Your task to perform on an android device: Look up the best rated pressure washer on Home Depot. Image 0: 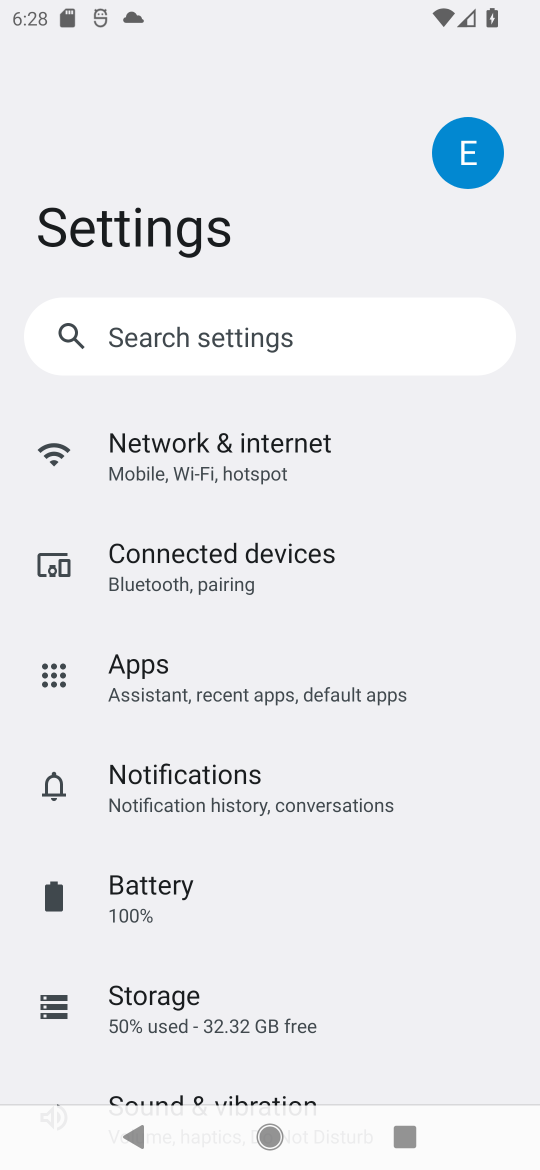
Step 0: press home button
Your task to perform on an android device: Look up the best rated pressure washer on Home Depot. Image 1: 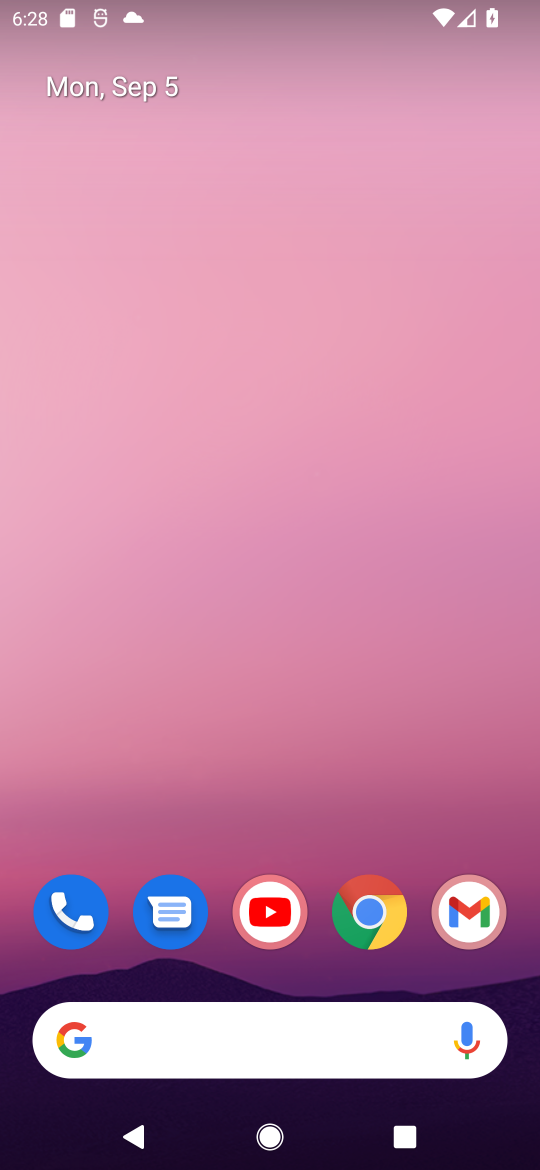
Step 1: click (368, 899)
Your task to perform on an android device: Look up the best rated pressure washer on Home Depot. Image 2: 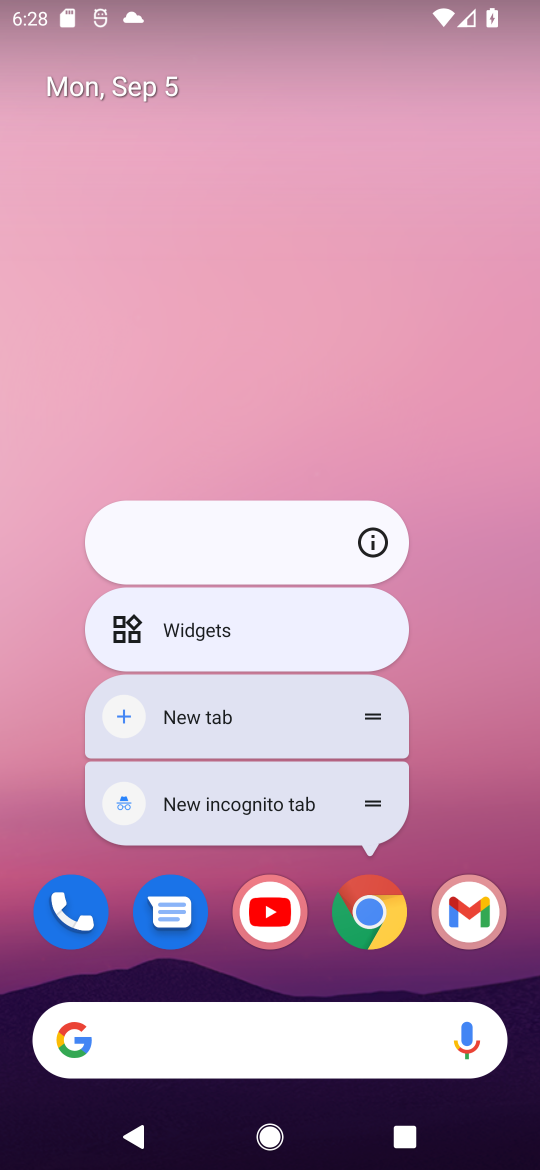
Step 2: click (368, 899)
Your task to perform on an android device: Look up the best rated pressure washer on Home Depot. Image 3: 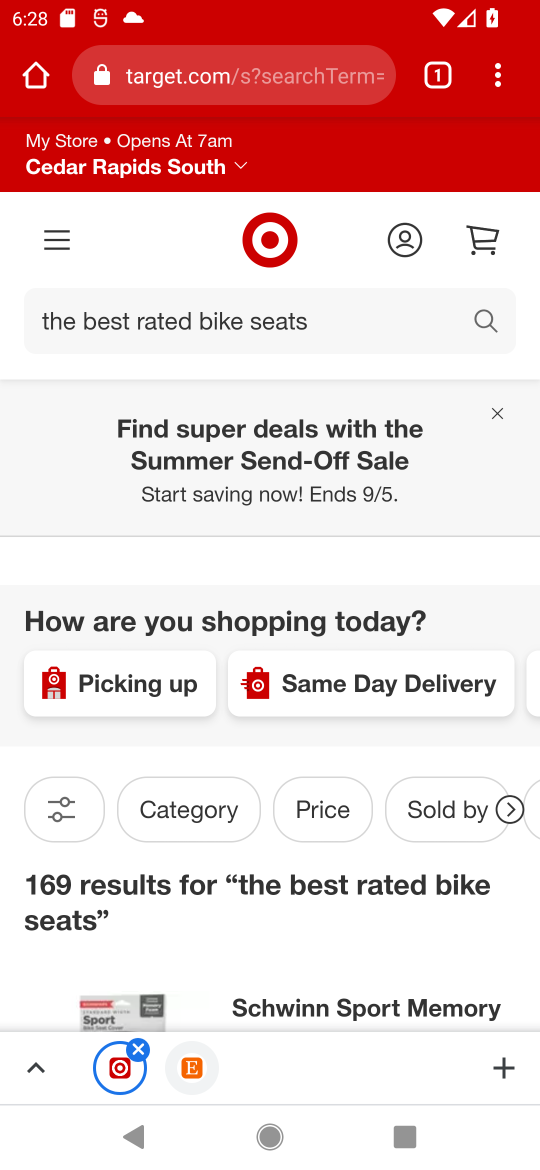
Step 3: click (168, 74)
Your task to perform on an android device: Look up the best rated pressure washer on Home Depot. Image 4: 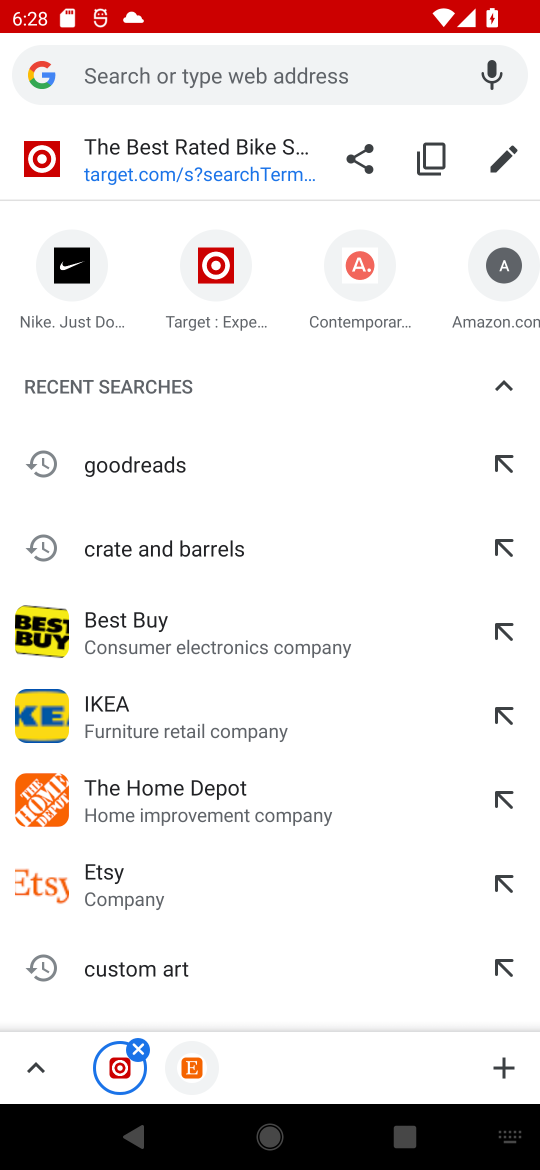
Step 4: type "home depot"
Your task to perform on an android device: Look up the best rated pressure washer on Home Depot. Image 5: 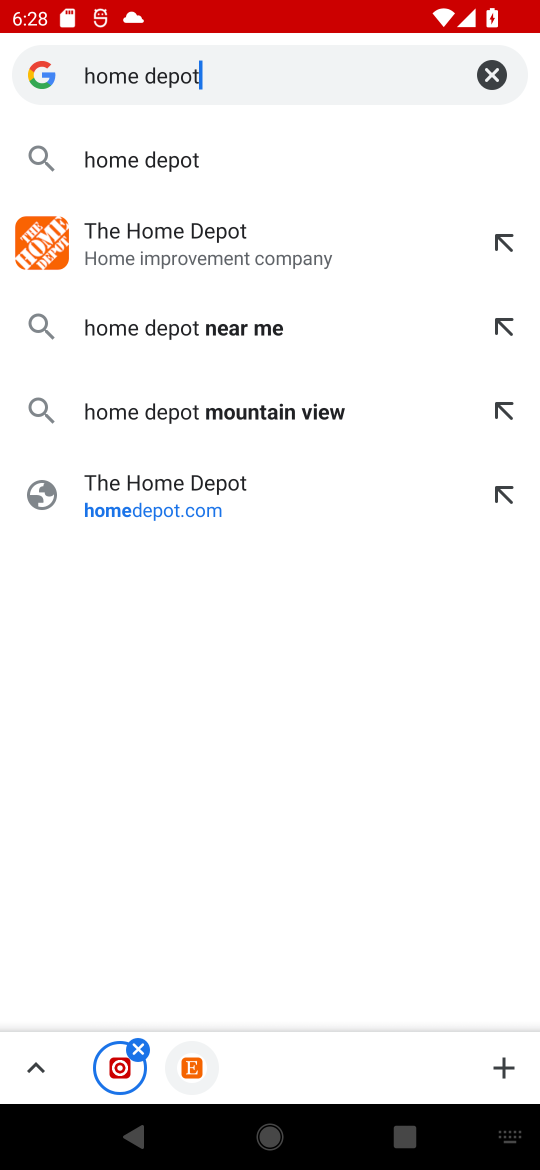
Step 5: click (228, 256)
Your task to perform on an android device: Look up the best rated pressure washer on Home Depot. Image 6: 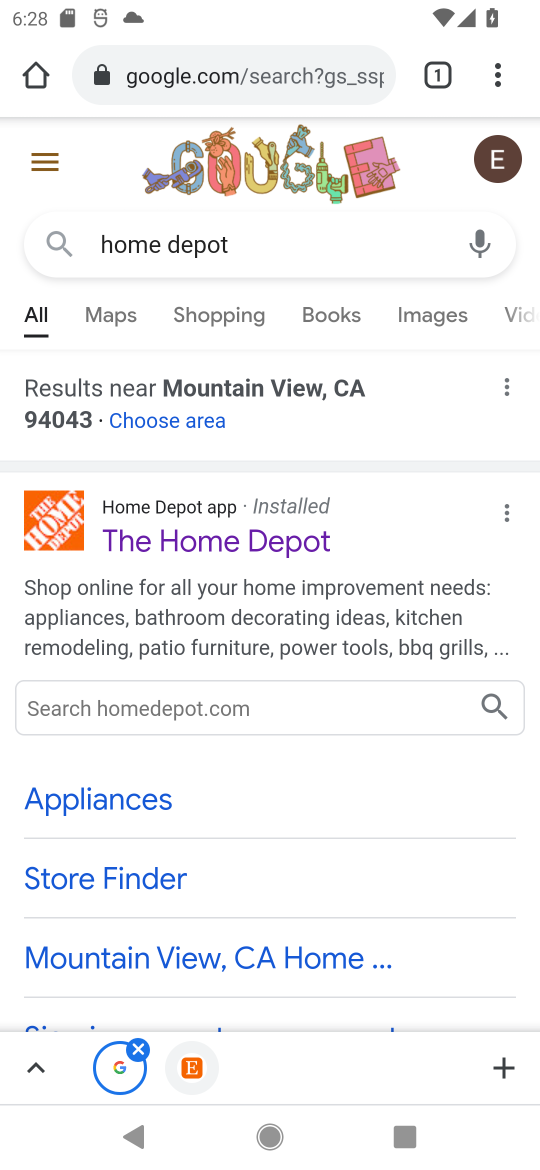
Step 6: drag from (252, 827) to (325, 188)
Your task to perform on an android device: Look up the best rated pressure washer on Home Depot. Image 7: 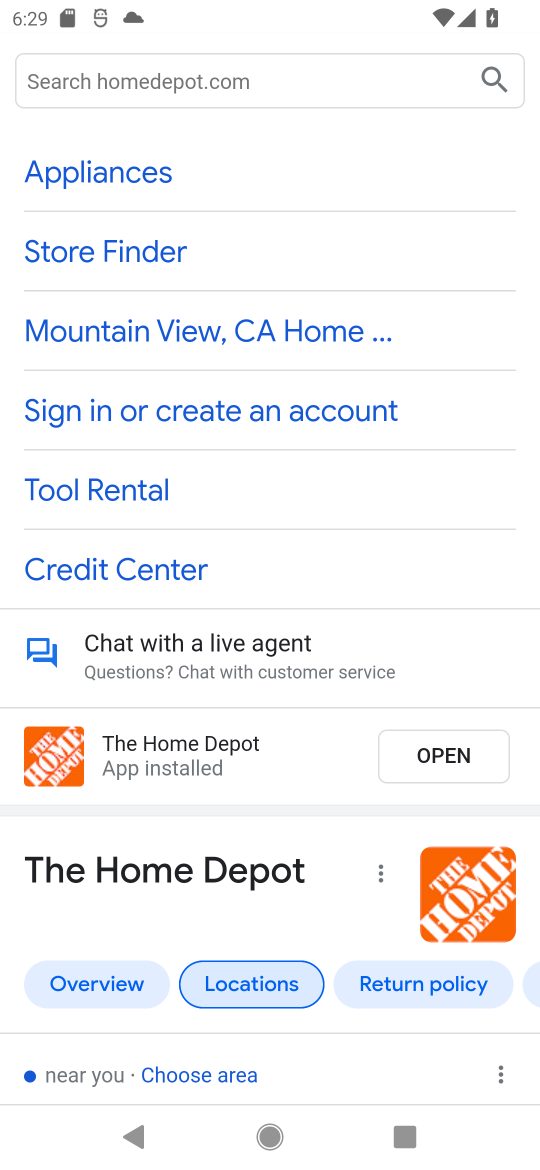
Step 7: drag from (257, 906) to (283, 165)
Your task to perform on an android device: Look up the best rated pressure washer on Home Depot. Image 8: 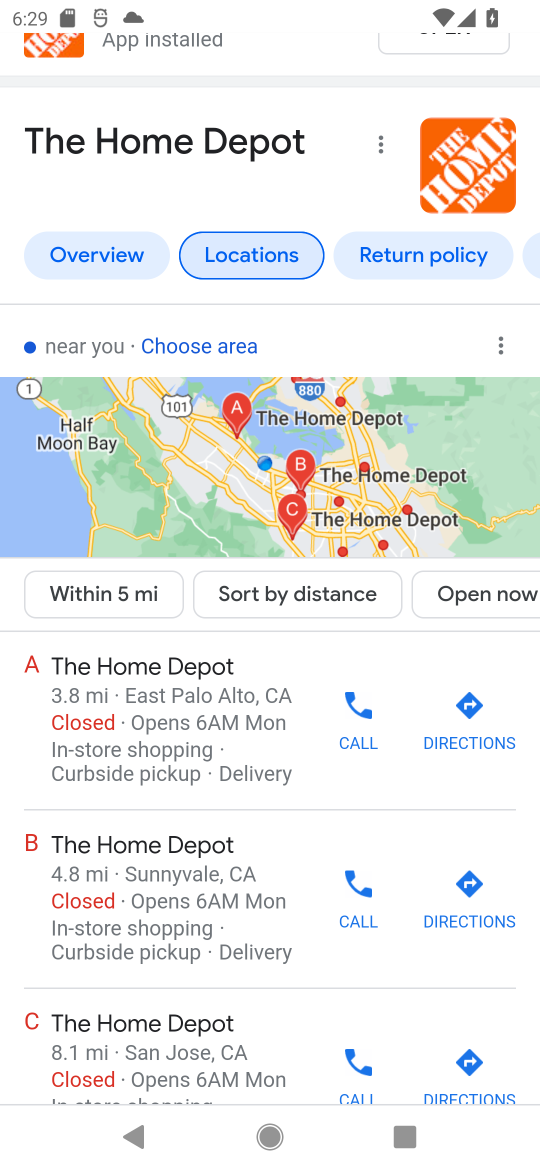
Step 8: drag from (245, 346) to (247, 279)
Your task to perform on an android device: Look up the best rated pressure washer on Home Depot. Image 9: 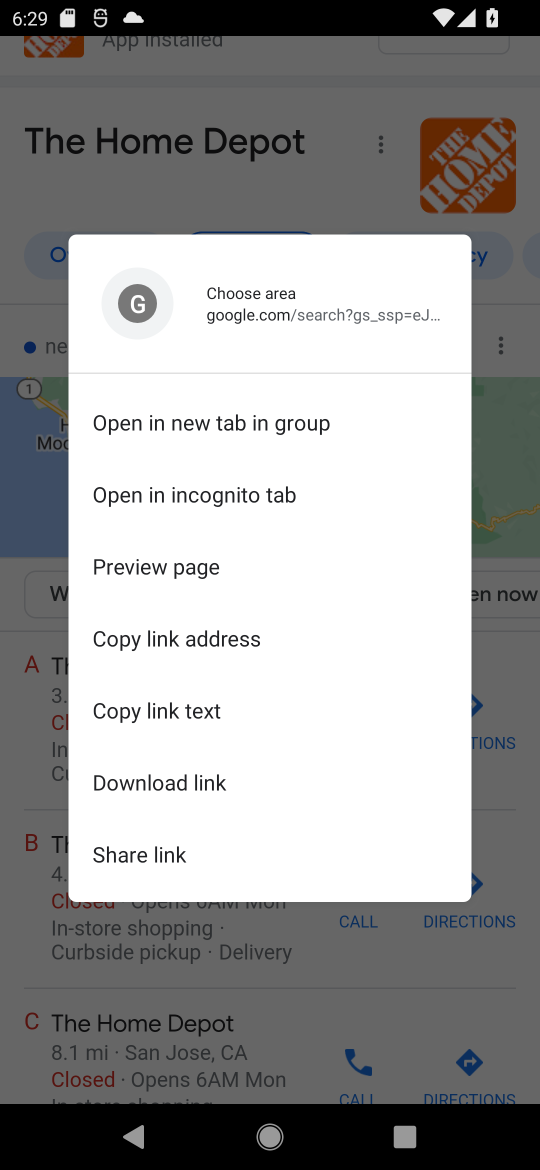
Step 9: drag from (53, 185) to (96, 1069)
Your task to perform on an android device: Look up the best rated pressure washer on Home Depot. Image 10: 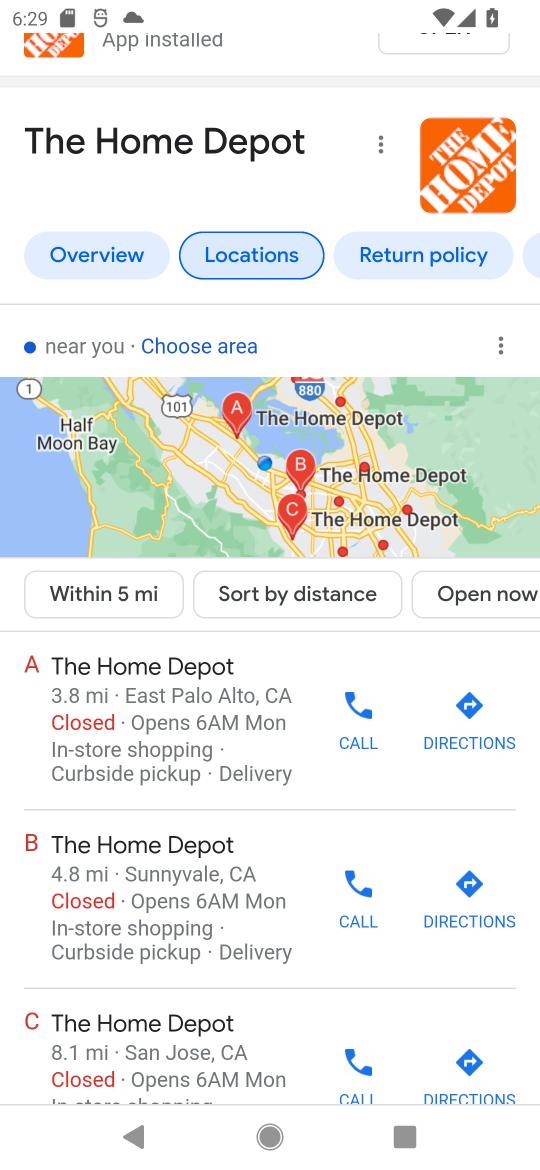
Step 10: drag from (207, 925) to (301, 1160)
Your task to perform on an android device: Look up the best rated pressure washer on Home Depot. Image 11: 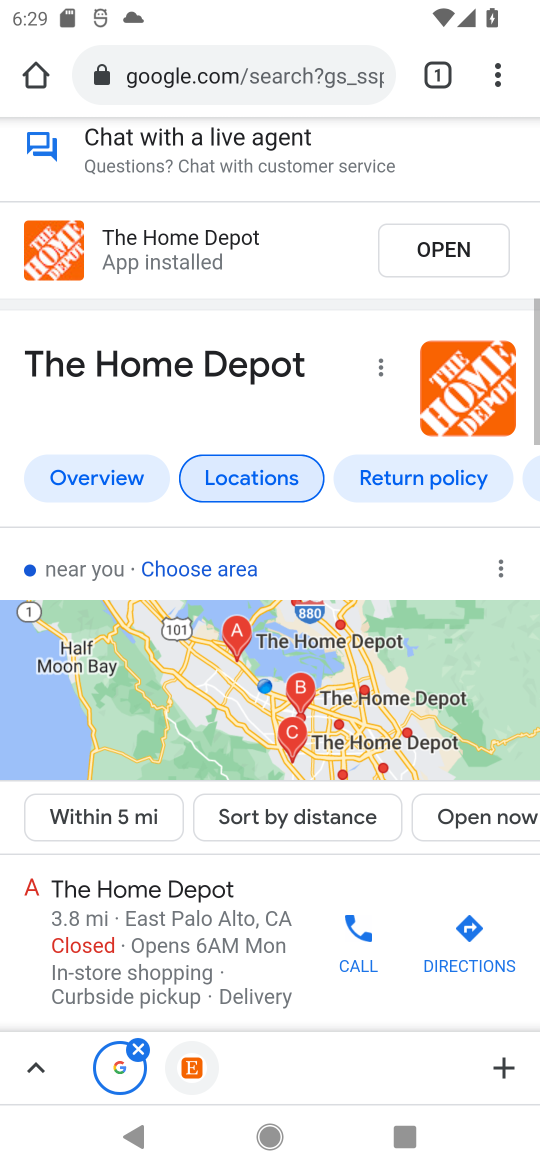
Step 11: drag from (294, 247) to (361, 1012)
Your task to perform on an android device: Look up the best rated pressure washer on Home Depot. Image 12: 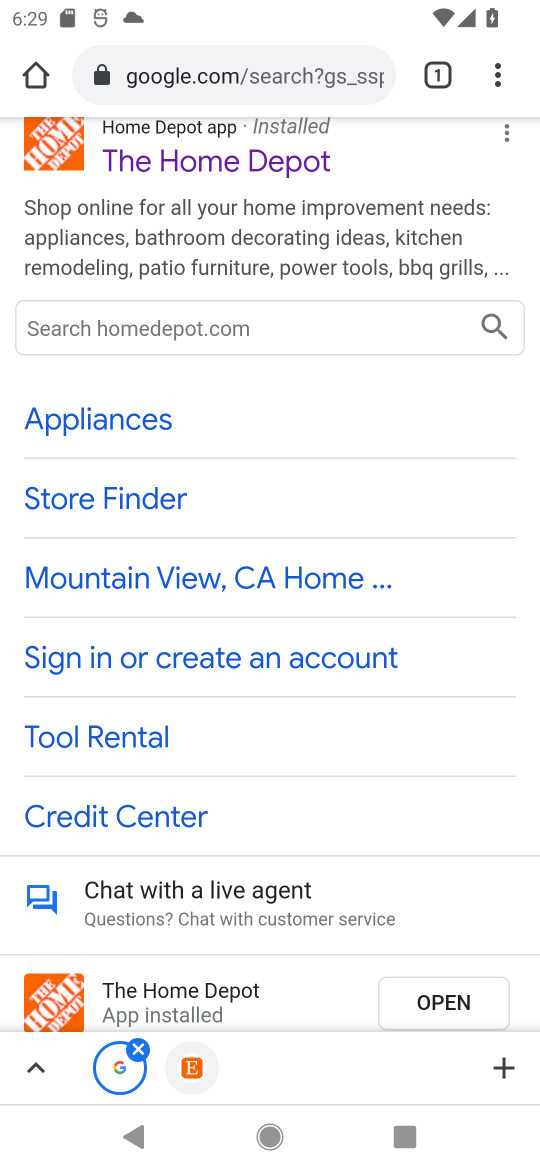
Step 12: click (263, 183)
Your task to perform on an android device: Look up the best rated pressure washer on Home Depot. Image 13: 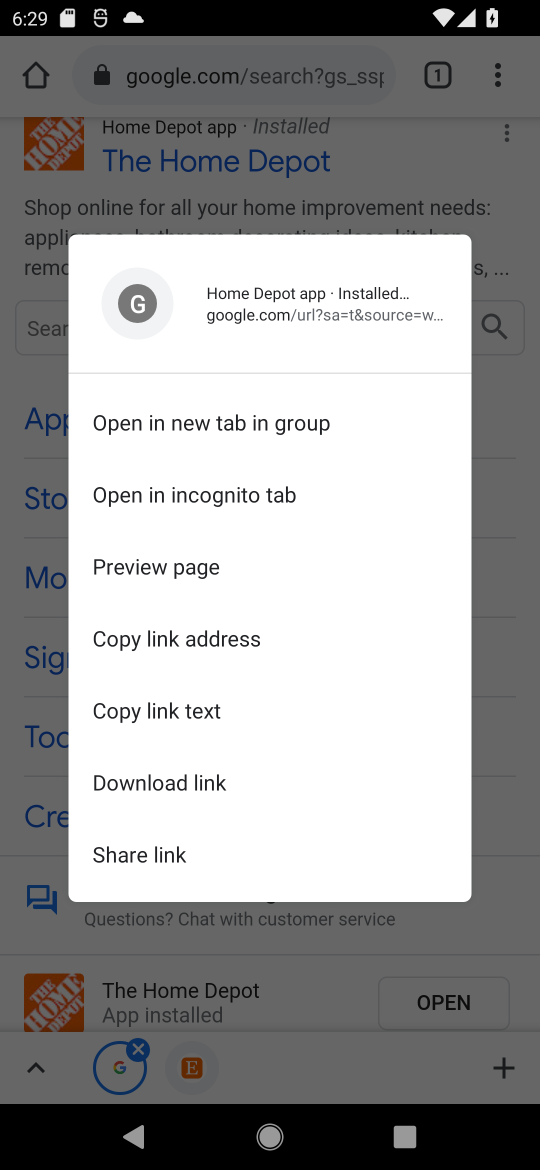
Step 13: click (187, 194)
Your task to perform on an android device: Look up the best rated pressure washer on Home Depot. Image 14: 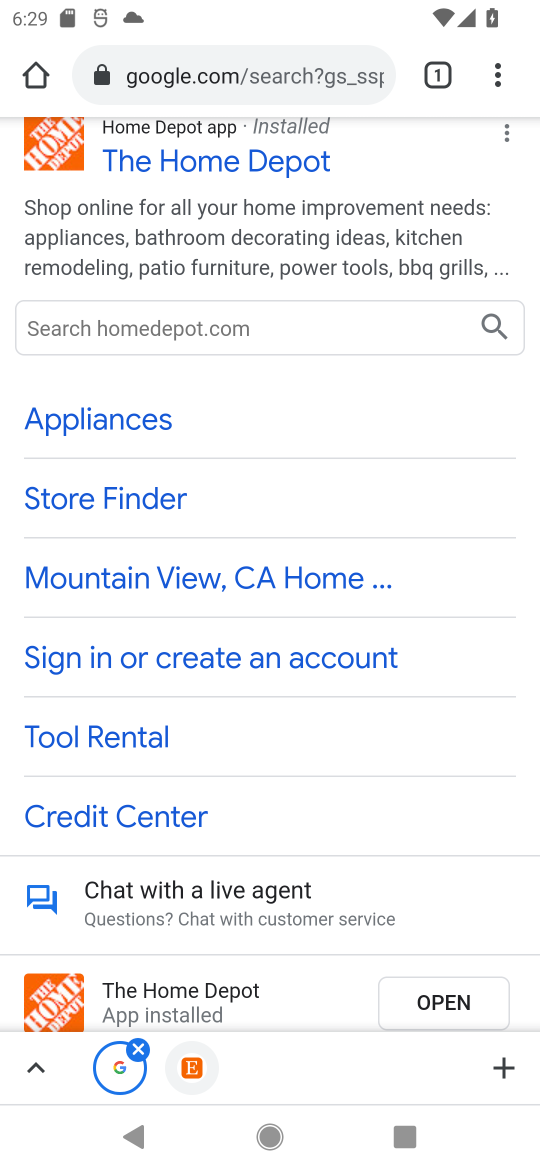
Step 14: click (260, 182)
Your task to perform on an android device: Look up the best rated pressure washer on Home Depot. Image 15: 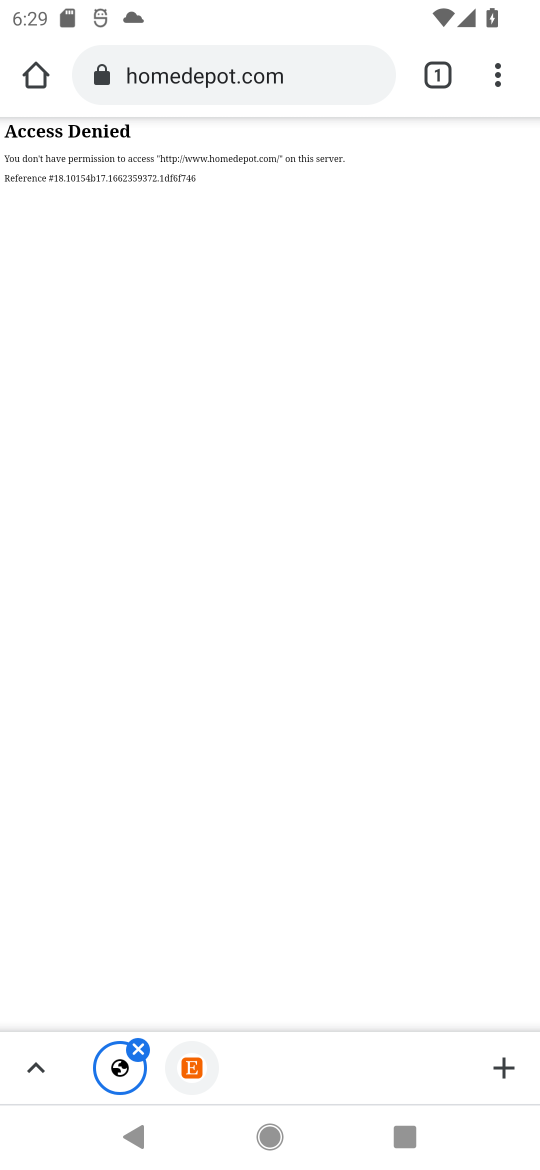
Step 15: task complete